Your task to perform on an android device: toggle javascript in the chrome app Image 0: 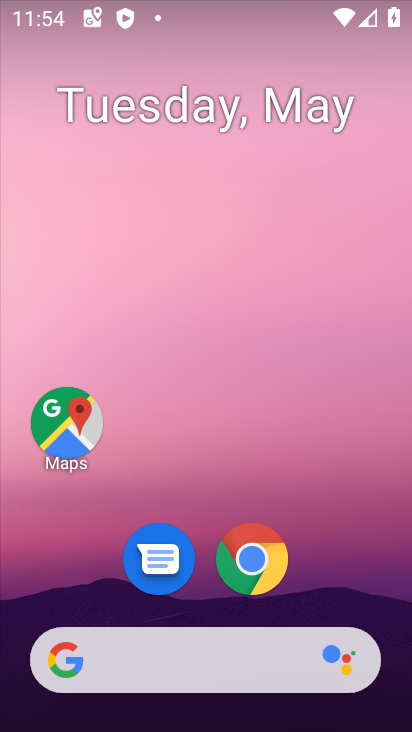
Step 0: click (251, 562)
Your task to perform on an android device: toggle javascript in the chrome app Image 1: 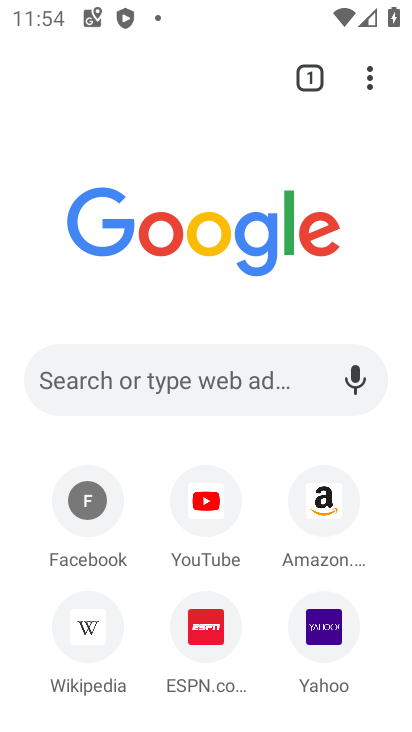
Step 1: click (369, 74)
Your task to perform on an android device: toggle javascript in the chrome app Image 2: 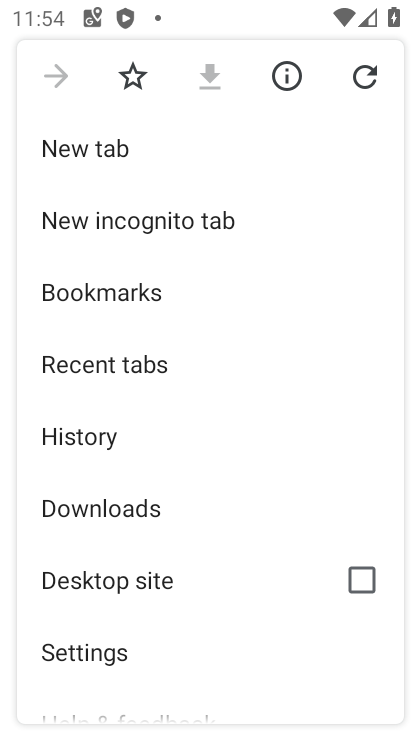
Step 2: click (98, 651)
Your task to perform on an android device: toggle javascript in the chrome app Image 3: 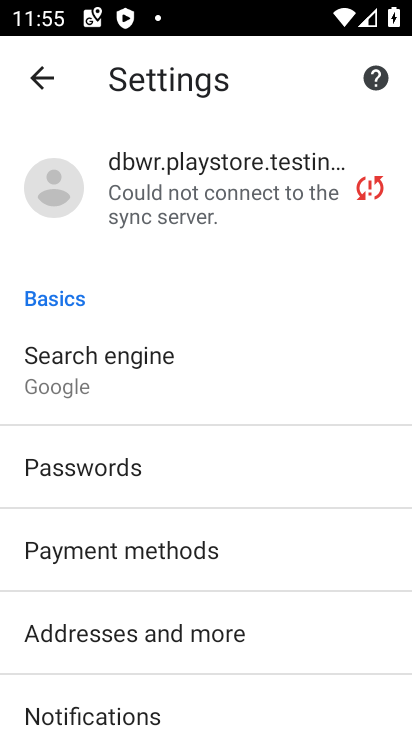
Step 3: drag from (87, 608) to (151, 471)
Your task to perform on an android device: toggle javascript in the chrome app Image 4: 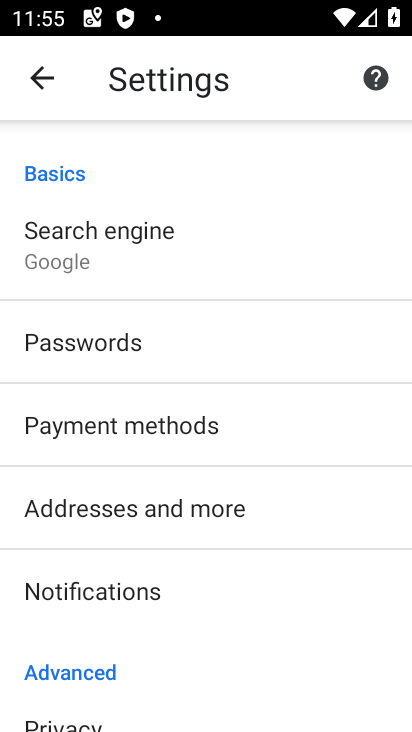
Step 4: drag from (102, 608) to (113, 489)
Your task to perform on an android device: toggle javascript in the chrome app Image 5: 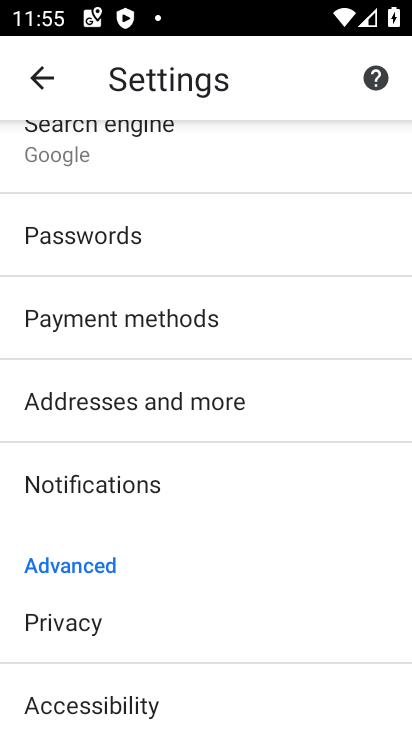
Step 5: drag from (93, 524) to (90, 300)
Your task to perform on an android device: toggle javascript in the chrome app Image 6: 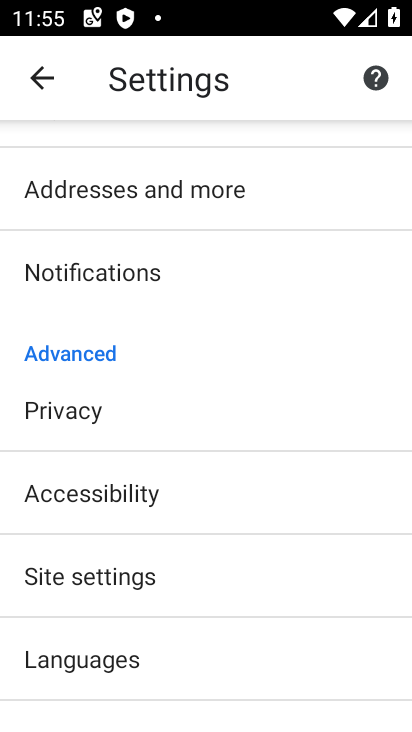
Step 6: click (106, 574)
Your task to perform on an android device: toggle javascript in the chrome app Image 7: 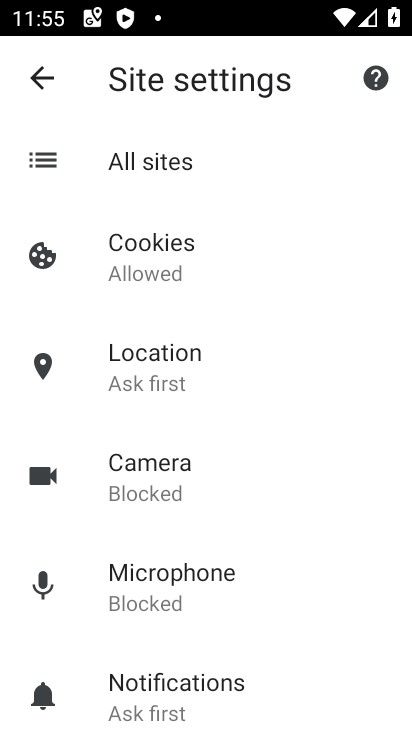
Step 7: drag from (158, 534) to (168, 373)
Your task to perform on an android device: toggle javascript in the chrome app Image 8: 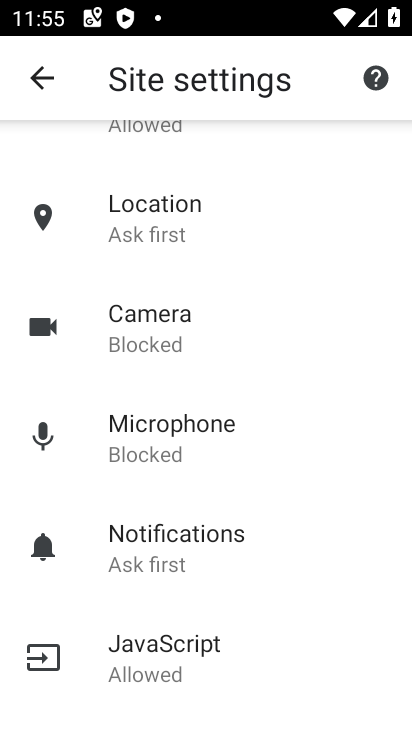
Step 8: click (168, 646)
Your task to perform on an android device: toggle javascript in the chrome app Image 9: 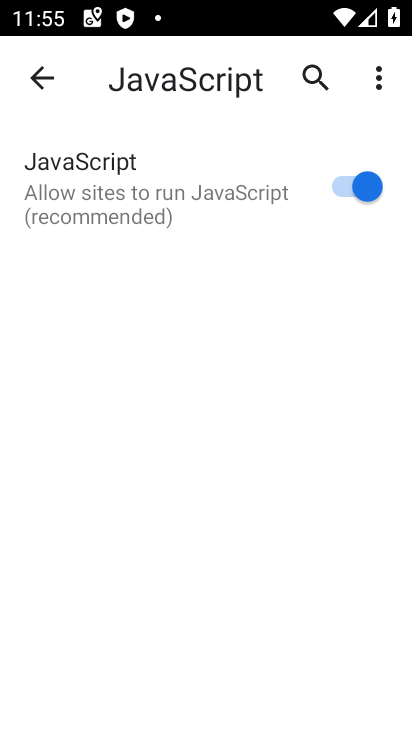
Step 9: click (349, 185)
Your task to perform on an android device: toggle javascript in the chrome app Image 10: 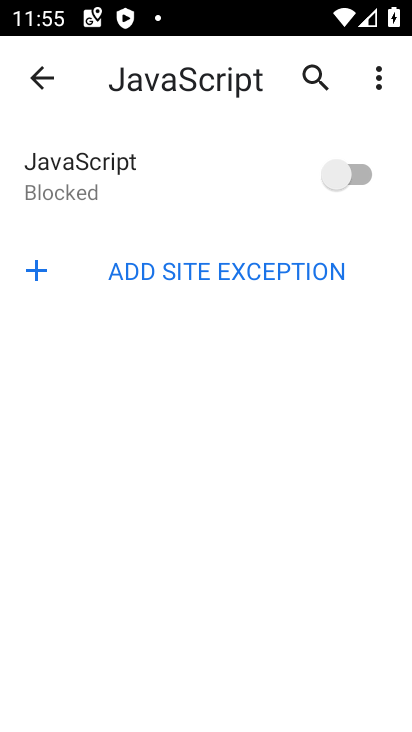
Step 10: task complete